Your task to perform on an android device: Go to Android settings Image 0: 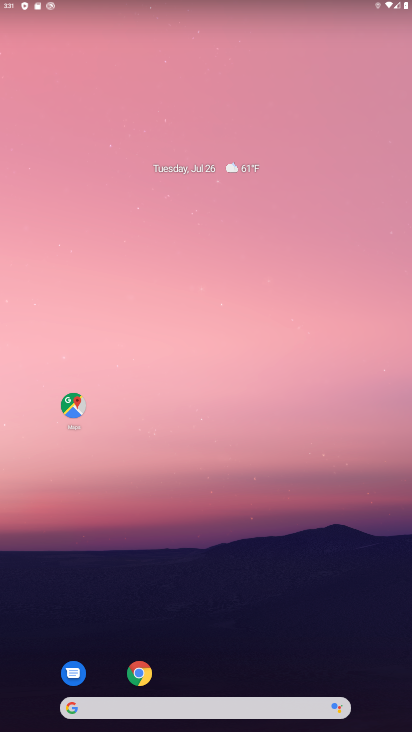
Step 0: press home button
Your task to perform on an android device: Go to Android settings Image 1: 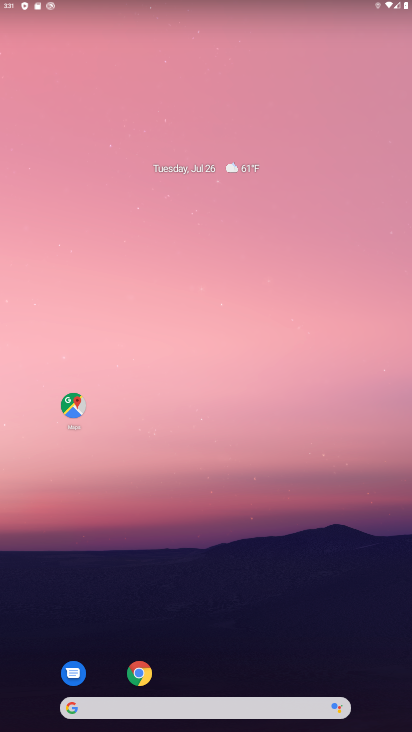
Step 1: drag from (220, 677) to (301, 0)
Your task to perform on an android device: Go to Android settings Image 2: 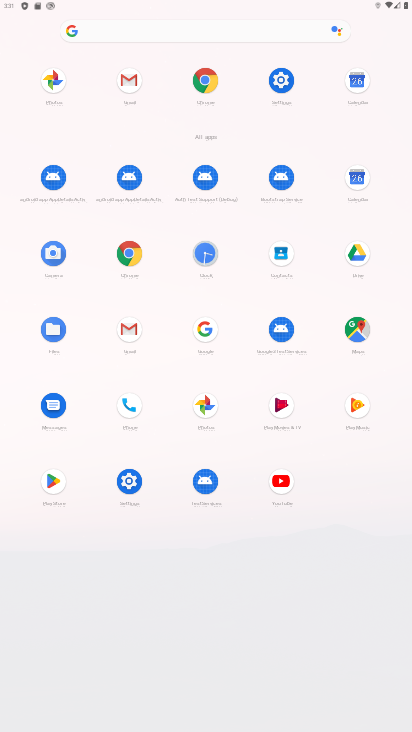
Step 2: click (279, 76)
Your task to perform on an android device: Go to Android settings Image 3: 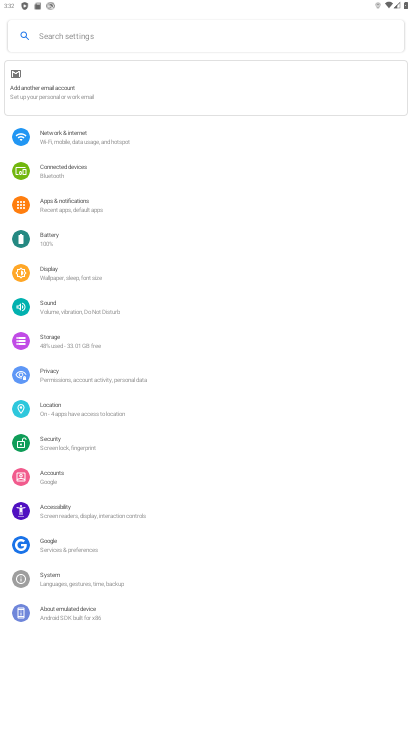
Step 3: click (113, 609)
Your task to perform on an android device: Go to Android settings Image 4: 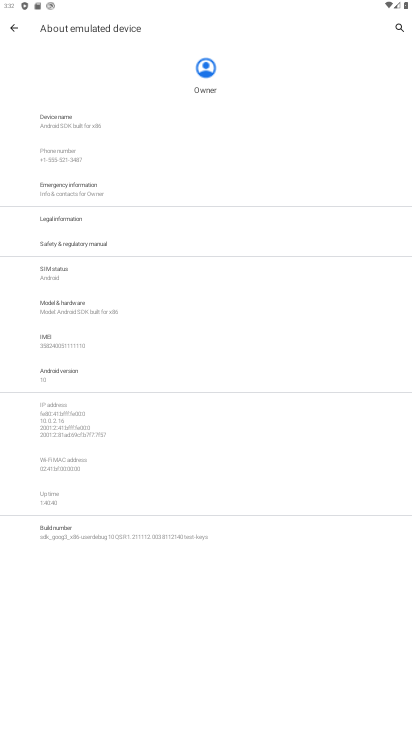
Step 4: click (82, 375)
Your task to perform on an android device: Go to Android settings Image 5: 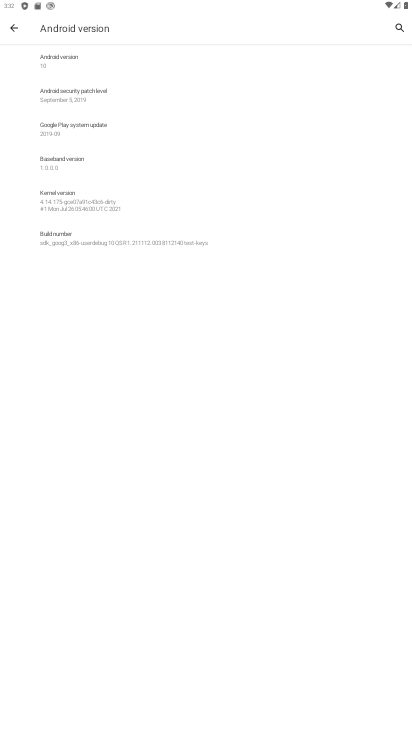
Step 5: task complete